Your task to perform on an android device: turn off data saver in the chrome app Image 0: 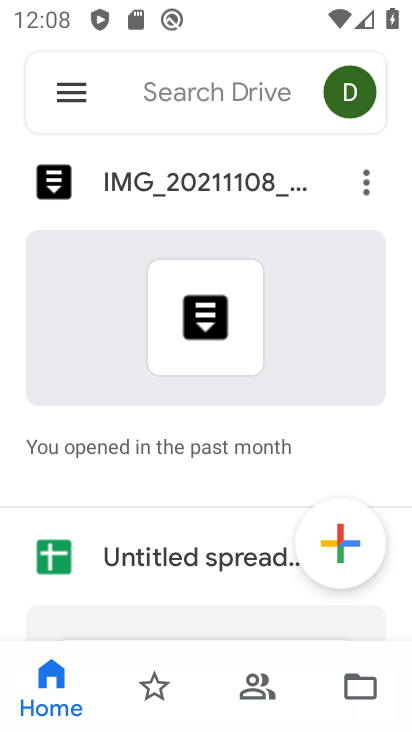
Step 0: press back button
Your task to perform on an android device: turn off data saver in the chrome app Image 1: 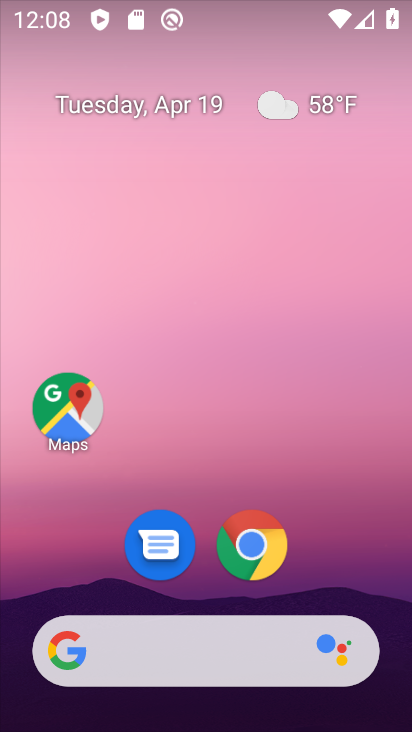
Step 1: click (265, 549)
Your task to perform on an android device: turn off data saver in the chrome app Image 2: 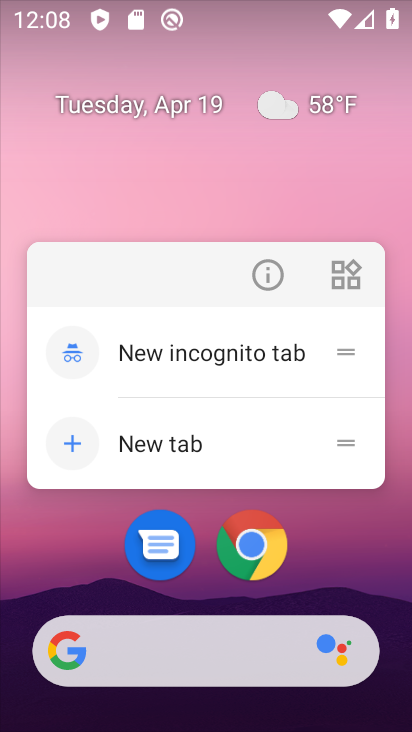
Step 2: click (256, 546)
Your task to perform on an android device: turn off data saver in the chrome app Image 3: 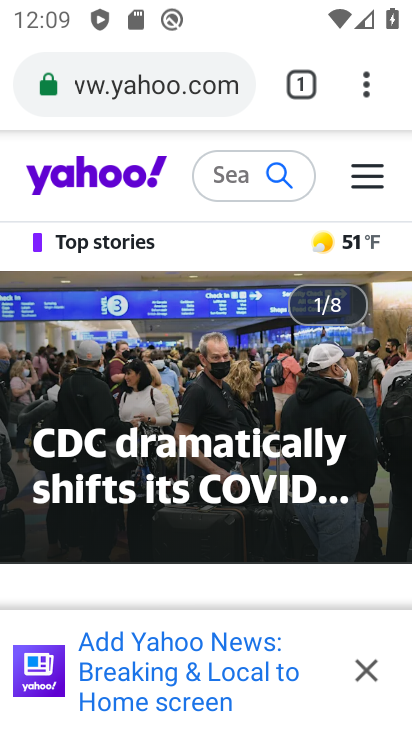
Step 3: click (364, 79)
Your task to perform on an android device: turn off data saver in the chrome app Image 4: 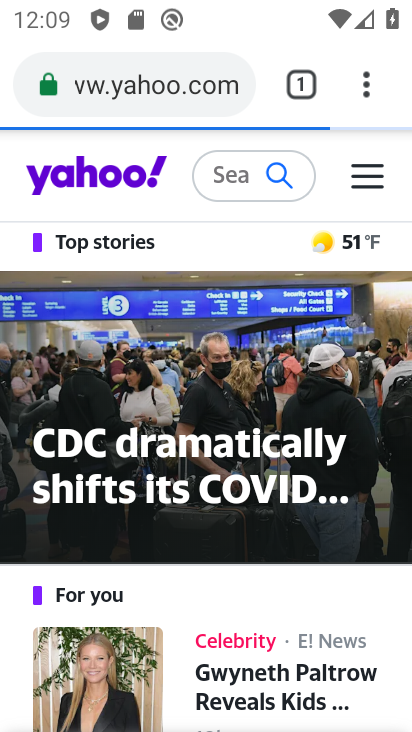
Step 4: click (368, 71)
Your task to perform on an android device: turn off data saver in the chrome app Image 5: 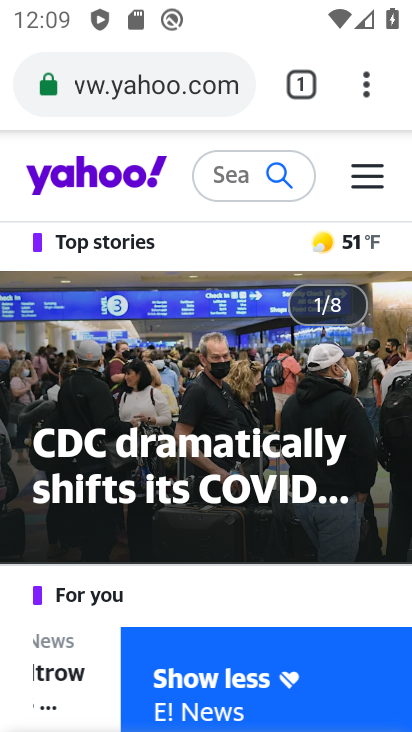
Step 5: click (371, 98)
Your task to perform on an android device: turn off data saver in the chrome app Image 6: 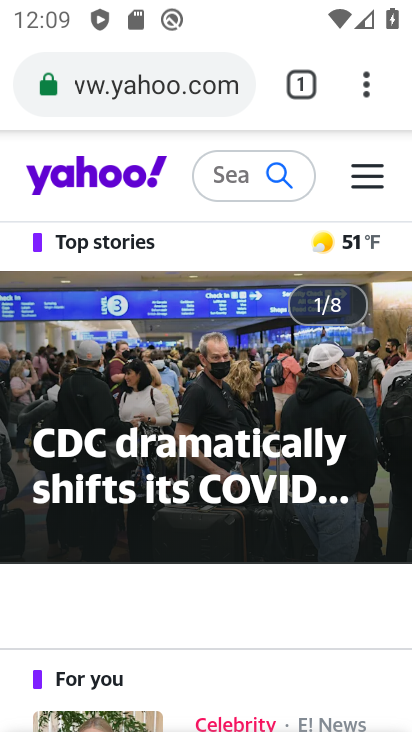
Step 6: click (362, 100)
Your task to perform on an android device: turn off data saver in the chrome app Image 7: 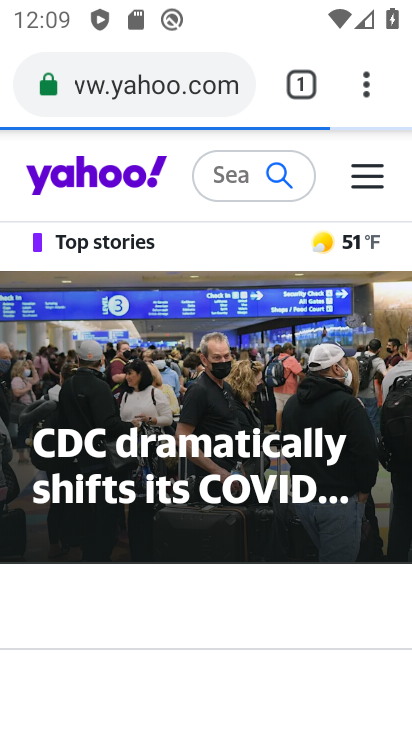
Step 7: click (363, 84)
Your task to perform on an android device: turn off data saver in the chrome app Image 8: 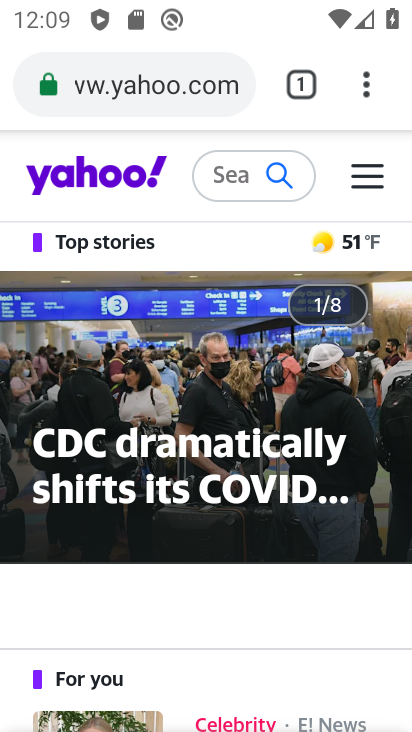
Step 8: drag from (361, 94) to (148, 623)
Your task to perform on an android device: turn off data saver in the chrome app Image 9: 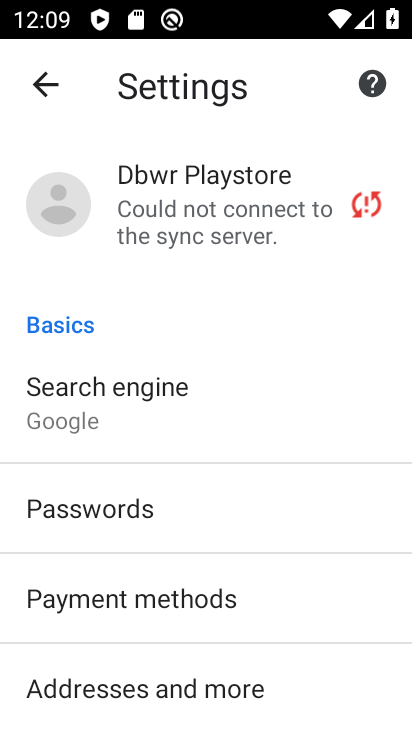
Step 9: drag from (167, 638) to (311, 78)
Your task to perform on an android device: turn off data saver in the chrome app Image 10: 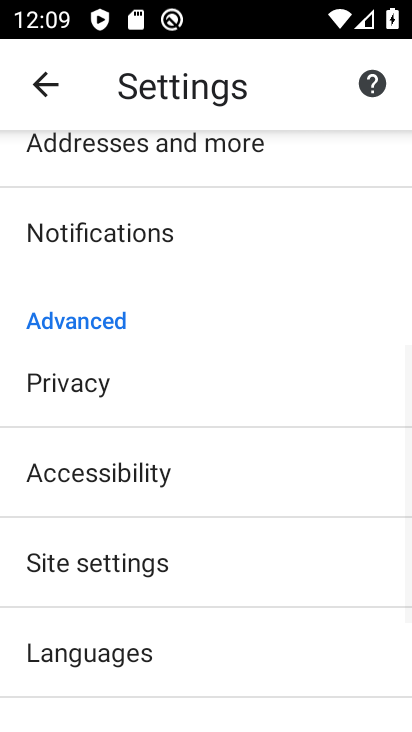
Step 10: drag from (171, 616) to (319, 101)
Your task to perform on an android device: turn off data saver in the chrome app Image 11: 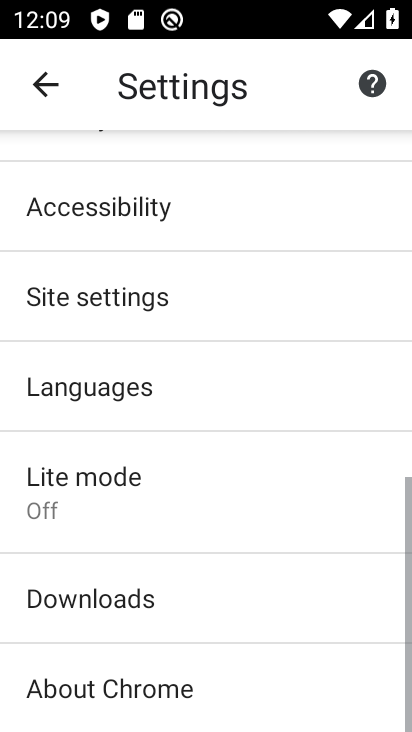
Step 11: click (83, 491)
Your task to perform on an android device: turn off data saver in the chrome app Image 12: 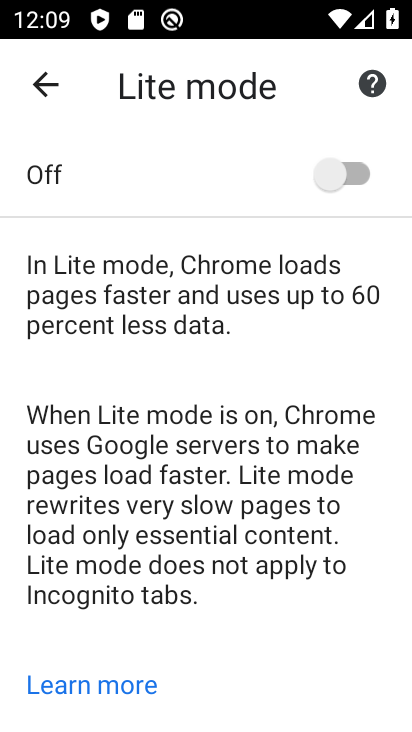
Step 12: task complete